Your task to perform on an android device: What is the recent news? Image 0: 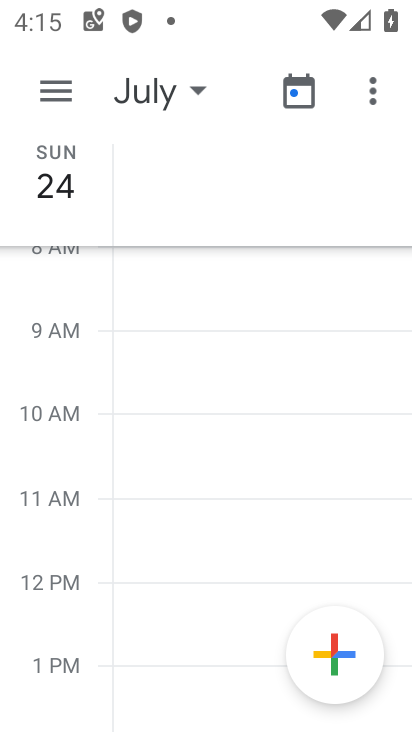
Step 0: press home button
Your task to perform on an android device: What is the recent news? Image 1: 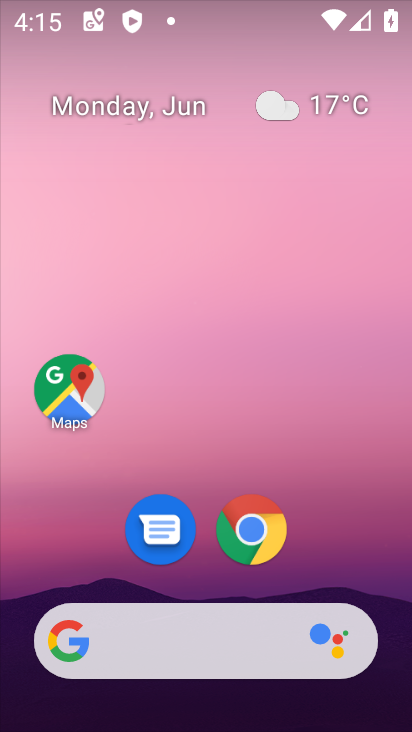
Step 1: drag from (315, 544) to (236, 44)
Your task to perform on an android device: What is the recent news? Image 2: 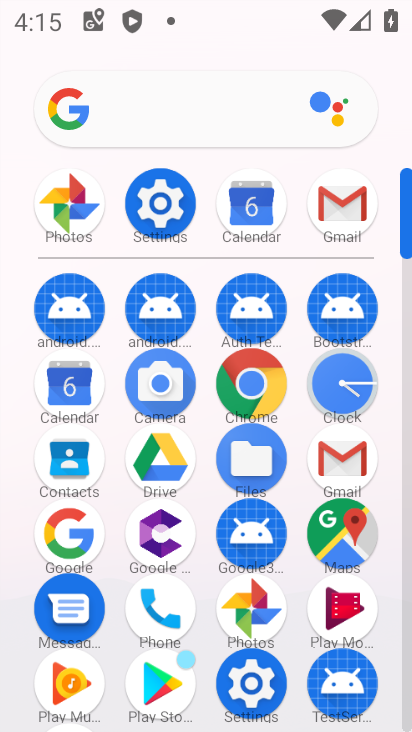
Step 2: click (64, 534)
Your task to perform on an android device: What is the recent news? Image 3: 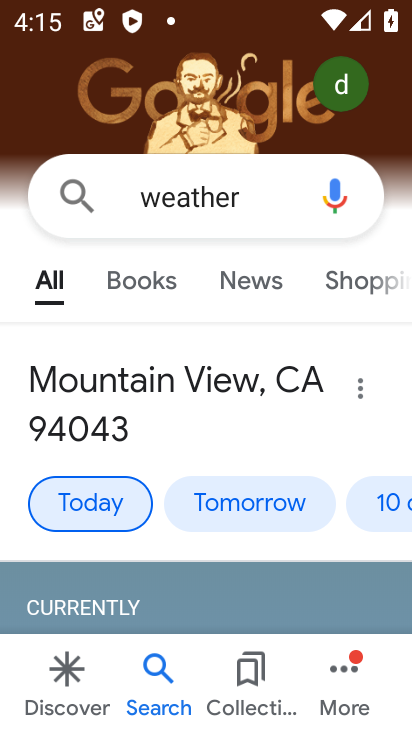
Step 3: click (252, 201)
Your task to perform on an android device: What is the recent news? Image 4: 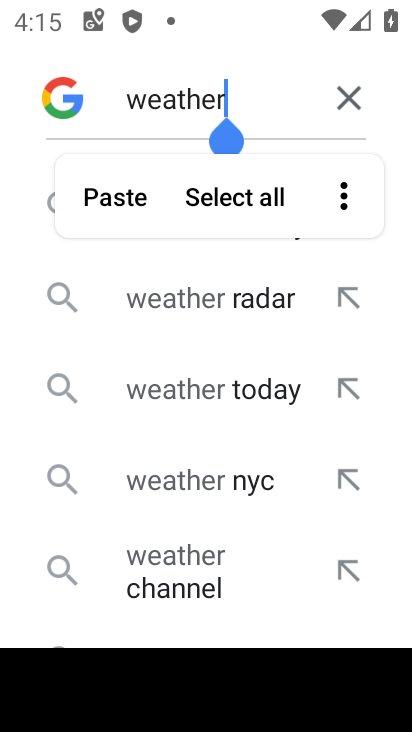
Step 4: click (354, 94)
Your task to perform on an android device: What is the recent news? Image 5: 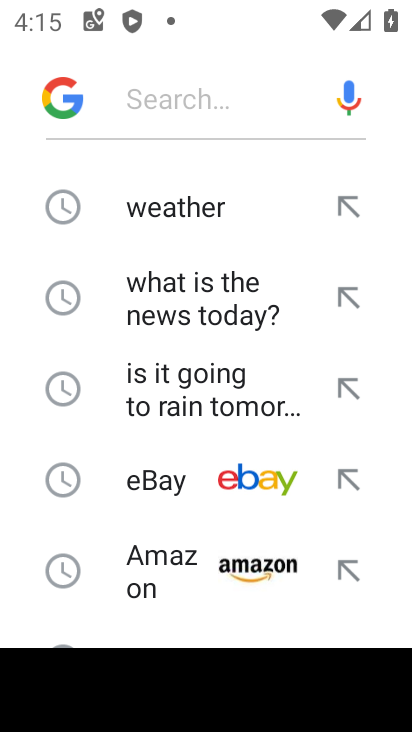
Step 5: type "recent news"
Your task to perform on an android device: What is the recent news? Image 6: 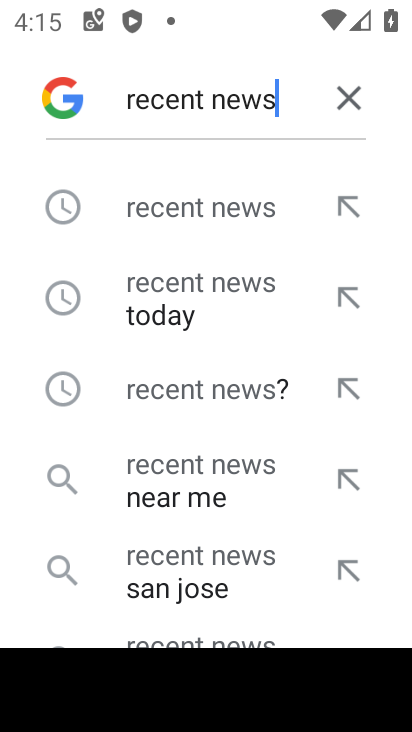
Step 6: click (259, 385)
Your task to perform on an android device: What is the recent news? Image 7: 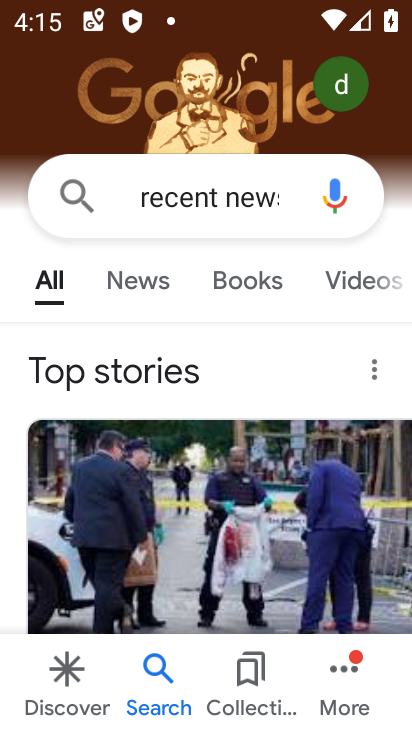
Step 7: task complete